Your task to perform on an android device: Go to eBay Image 0: 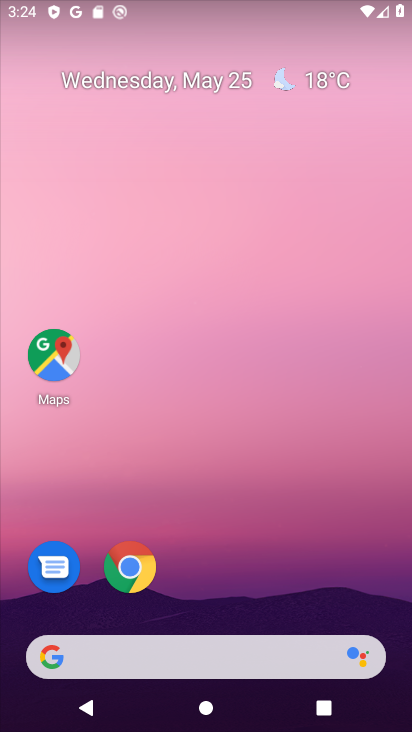
Step 0: click (346, 111)
Your task to perform on an android device: Go to eBay Image 1: 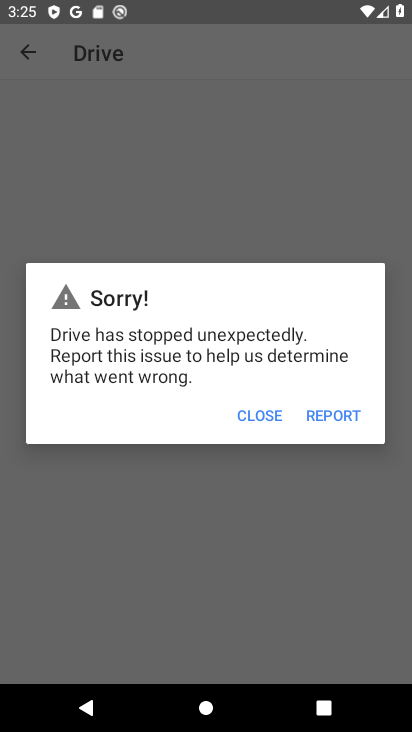
Step 1: press home button
Your task to perform on an android device: Go to eBay Image 2: 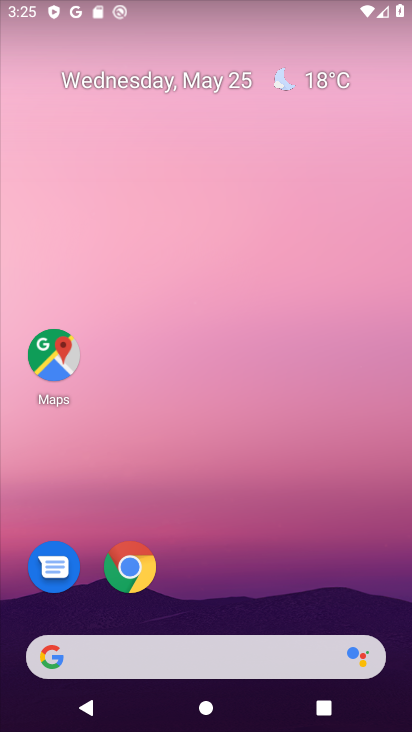
Step 2: drag from (351, 605) to (325, 50)
Your task to perform on an android device: Go to eBay Image 3: 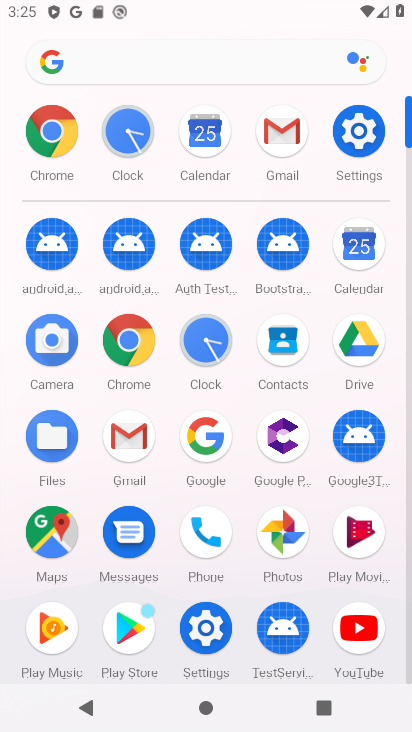
Step 3: click (145, 351)
Your task to perform on an android device: Go to eBay Image 4: 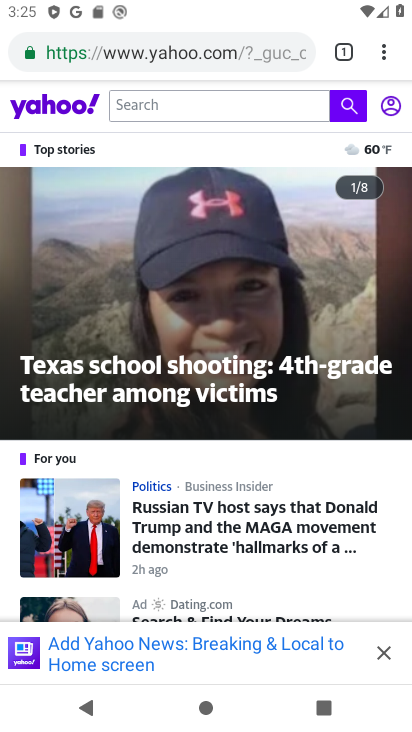
Step 4: click (187, 52)
Your task to perform on an android device: Go to eBay Image 5: 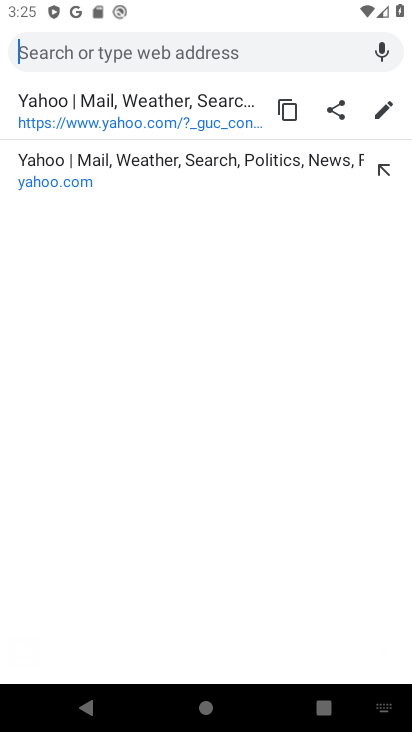
Step 5: type "ebay"
Your task to perform on an android device: Go to eBay Image 6: 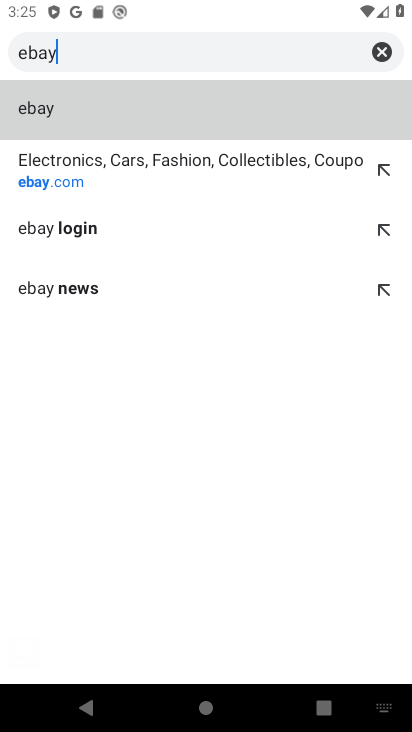
Step 6: click (112, 161)
Your task to perform on an android device: Go to eBay Image 7: 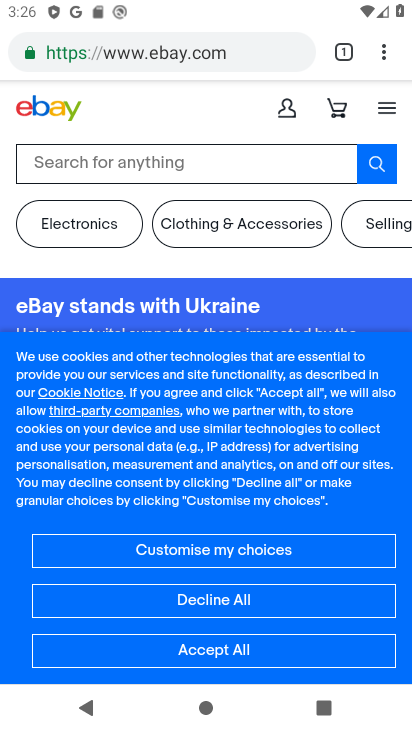
Step 7: task complete